Your task to perform on an android device: What is the news today? Image 0: 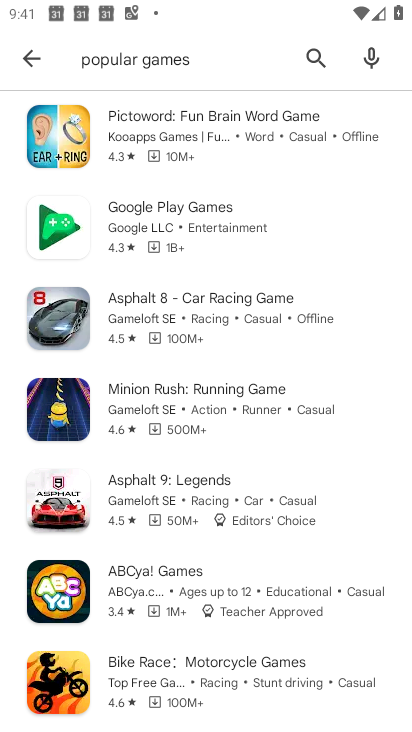
Step 0: press home button
Your task to perform on an android device: What is the news today? Image 1: 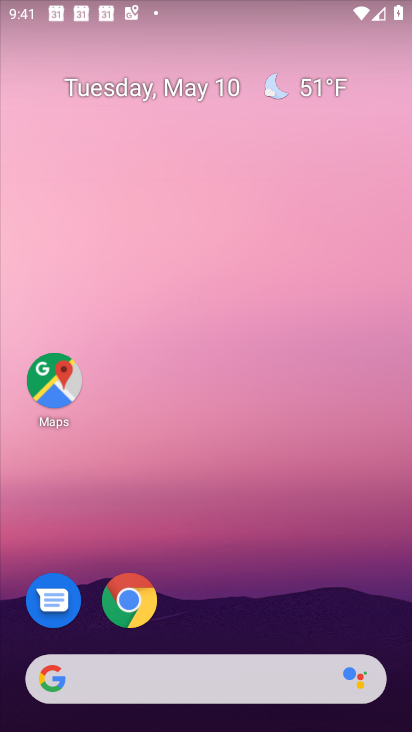
Step 1: click (150, 672)
Your task to perform on an android device: What is the news today? Image 2: 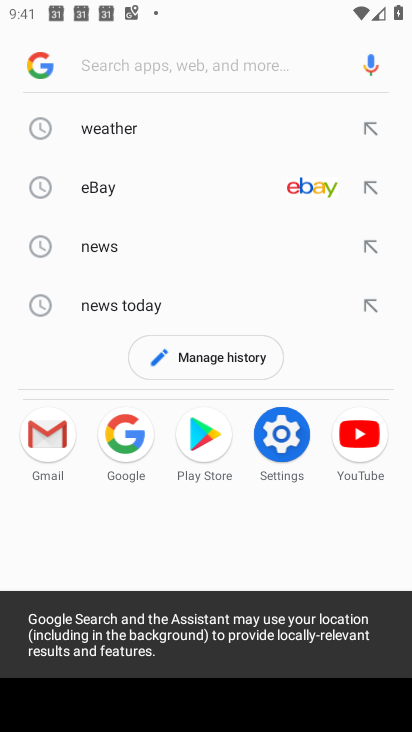
Step 2: click (121, 239)
Your task to perform on an android device: What is the news today? Image 3: 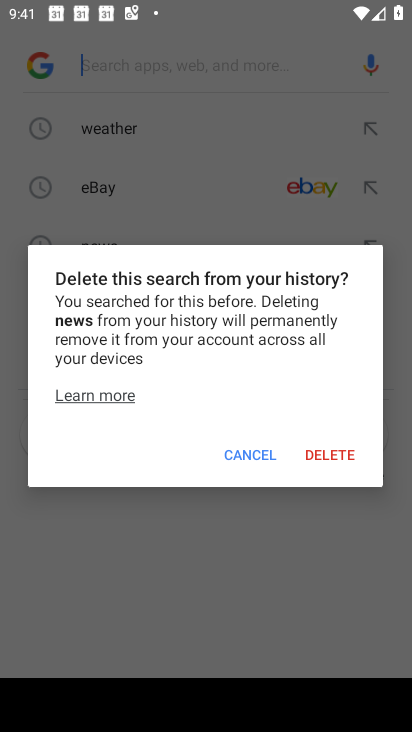
Step 3: click (271, 453)
Your task to perform on an android device: What is the news today? Image 4: 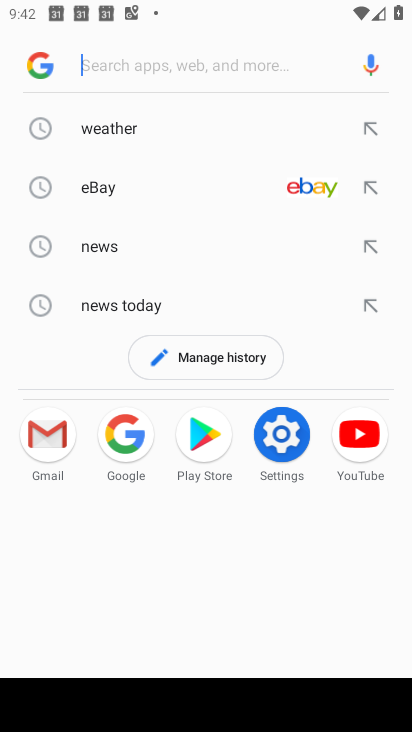
Step 4: click (98, 247)
Your task to perform on an android device: What is the news today? Image 5: 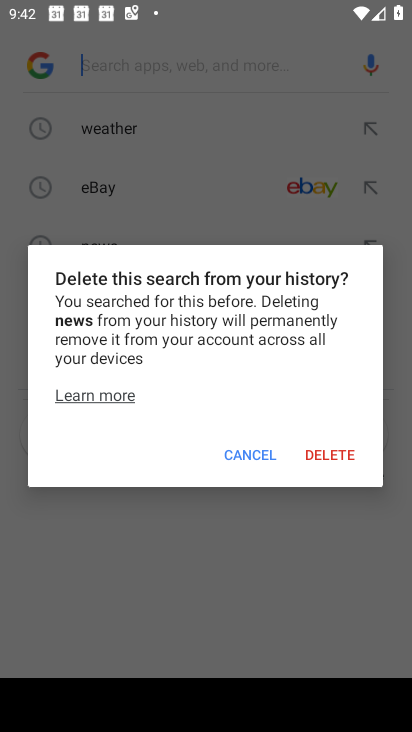
Step 5: click (249, 448)
Your task to perform on an android device: What is the news today? Image 6: 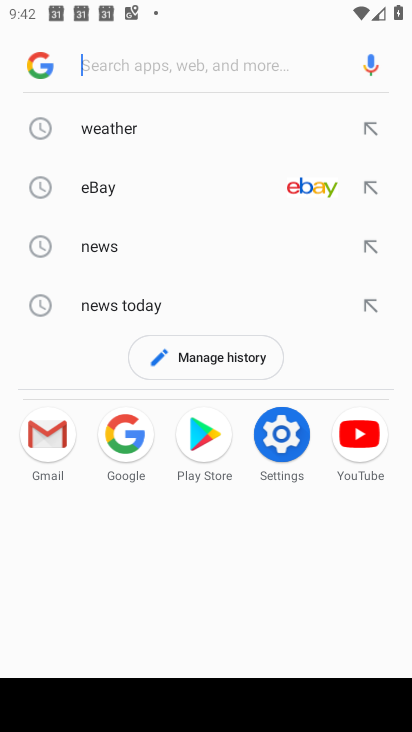
Step 6: click (376, 249)
Your task to perform on an android device: What is the news today? Image 7: 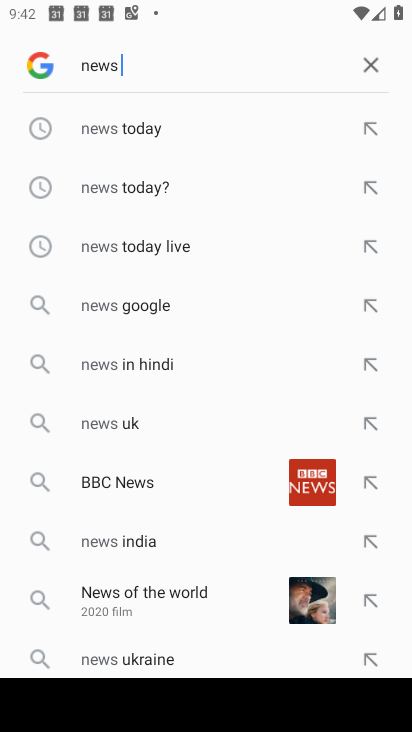
Step 7: click (135, 127)
Your task to perform on an android device: What is the news today? Image 8: 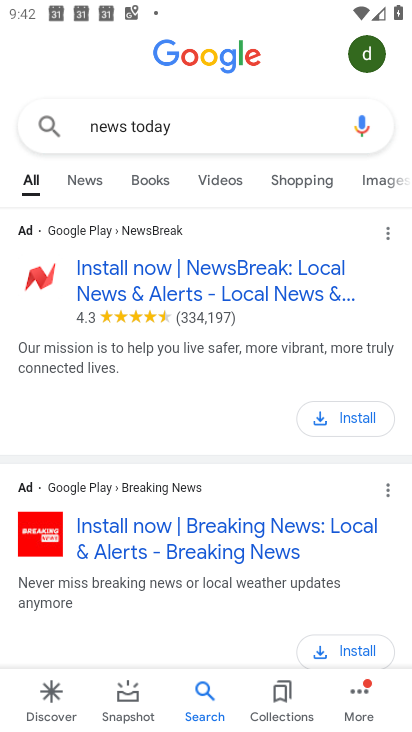
Step 8: task complete